Your task to perform on an android device: Search for sushi restaurants on Maps Image 0: 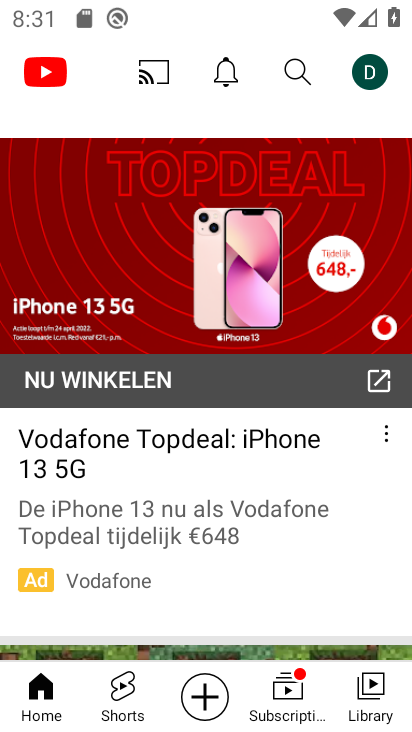
Step 0: press home button
Your task to perform on an android device: Search for sushi restaurants on Maps Image 1: 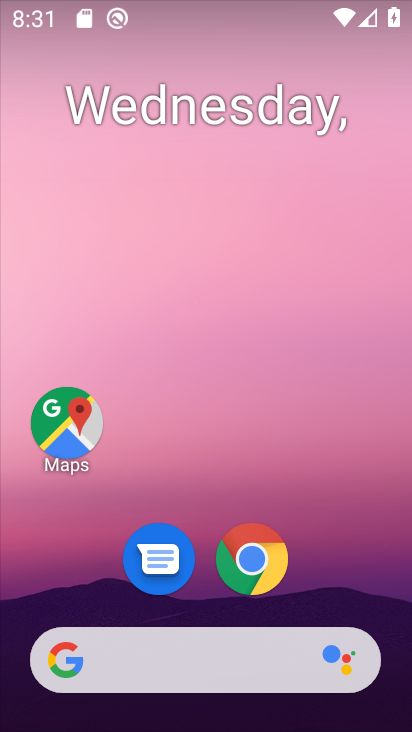
Step 1: drag from (373, 561) to (384, 186)
Your task to perform on an android device: Search for sushi restaurants on Maps Image 2: 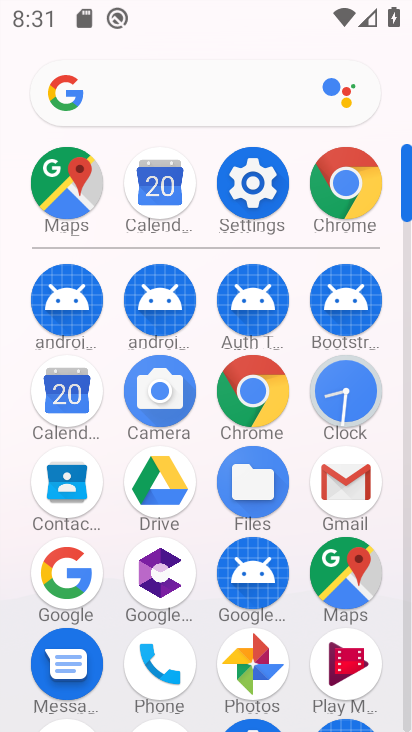
Step 2: click (335, 568)
Your task to perform on an android device: Search for sushi restaurants on Maps Image 3: 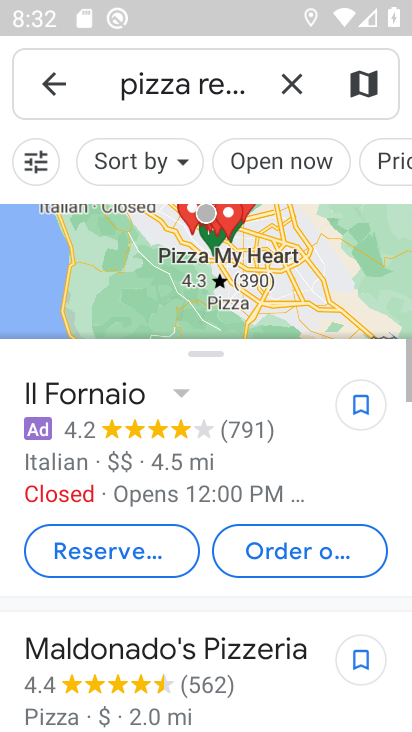
Step 3: click (287, 72)
Your task to perform on an android device: Search for sushi restaurants on Maps Image 4: 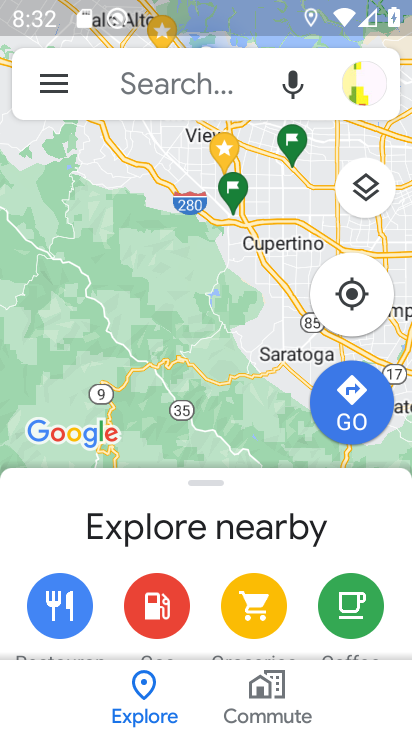
Step 4: type "sushi restaurants"
Your task to perform on an android device: Search for sushi restaurants on Maps Image 5: 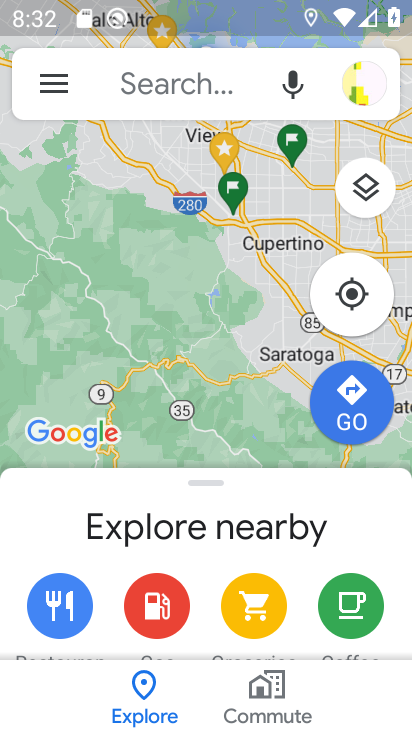
Step 5: click (173, 92)
Your task to perform on an android device: Search for sushi restaurants on Maps Image 6: 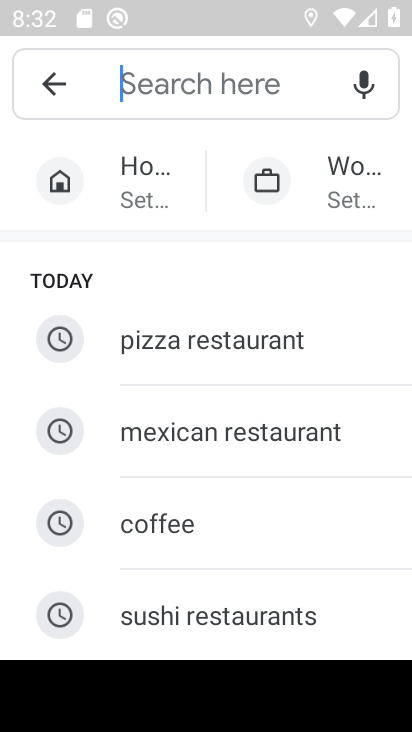
Step 6: click (218, 614)
Your task to perform on an android device: Search for sushi restaurants on Maps Image 7: 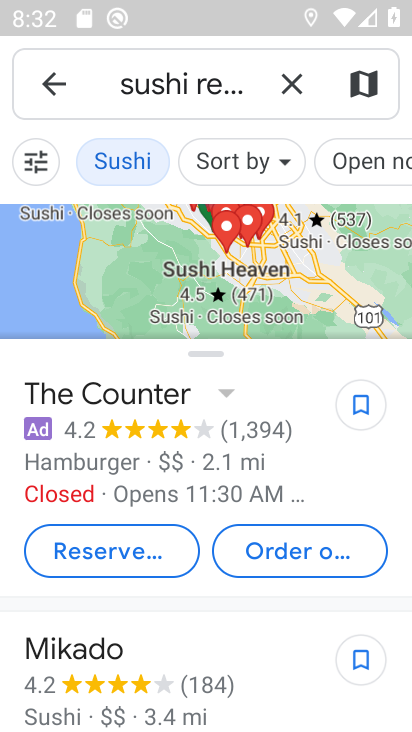
Step 7: task complete